Your task to perform on an android device: Go to display settings Image 0: 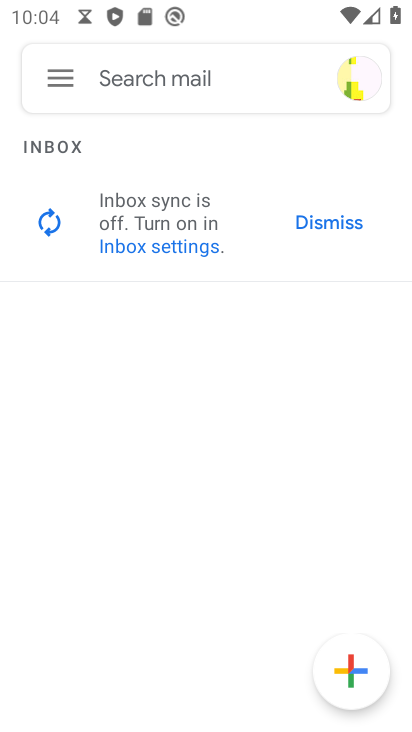
Step 0: press home button
Your task to perform on an android device: Go to display settings Image 1: 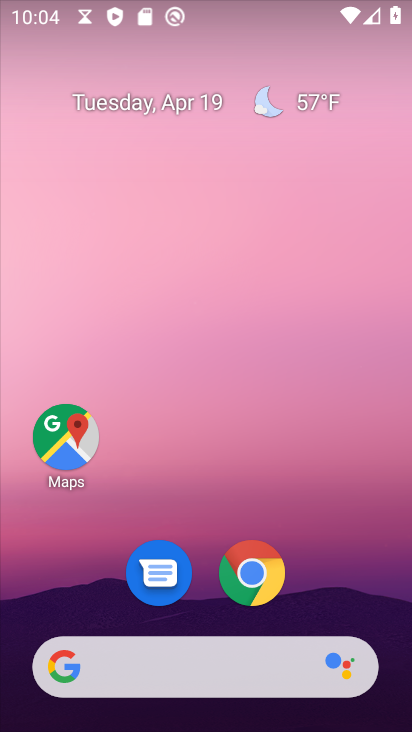
Step 1: drag from (305, 592) to (287, 112)
Your task to perform on an android device: Go to display settings Image 2: 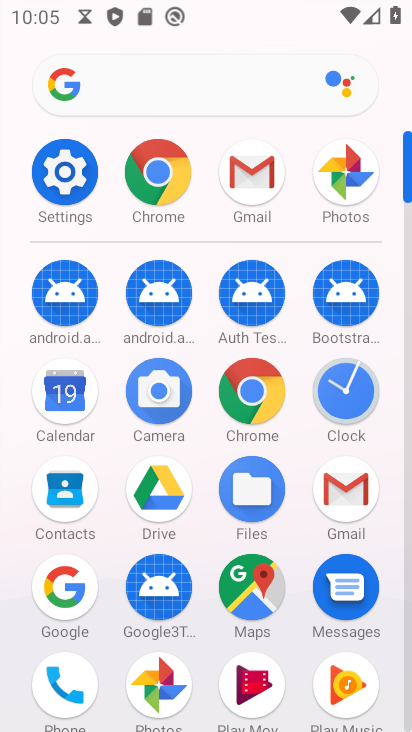
Step 2: click (49, 180)
Your task to perform on an android device: Go to display settings Image 3: 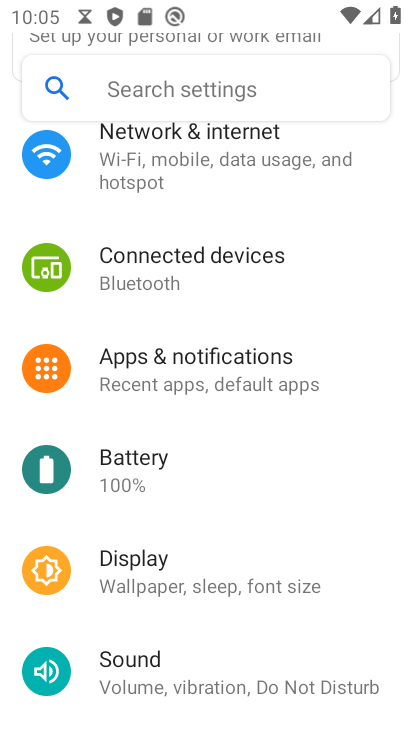
Step 3: click (150, 567)
Your task to perform on an android device: Go to display settings Image 4: 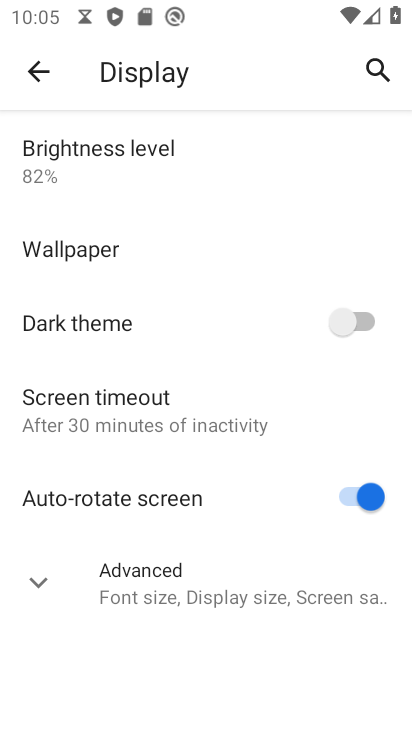
Step 4: task complete